Your task to perform on an android device: Open Chrome and go to settings Image 0: 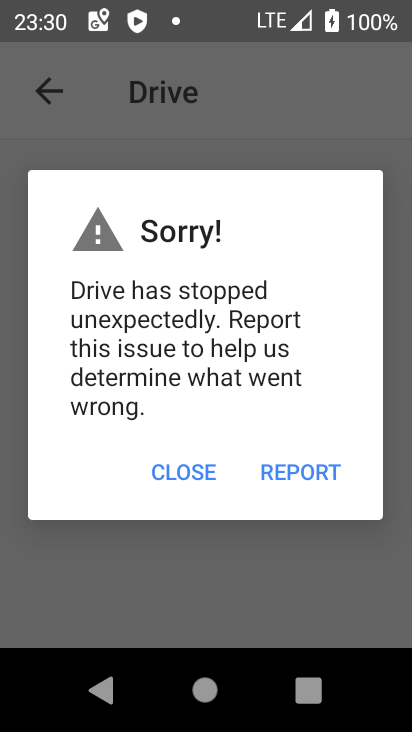
Step 0: press home button
Your task to perform on an android device: Open Chrome and go to settings Image 1: 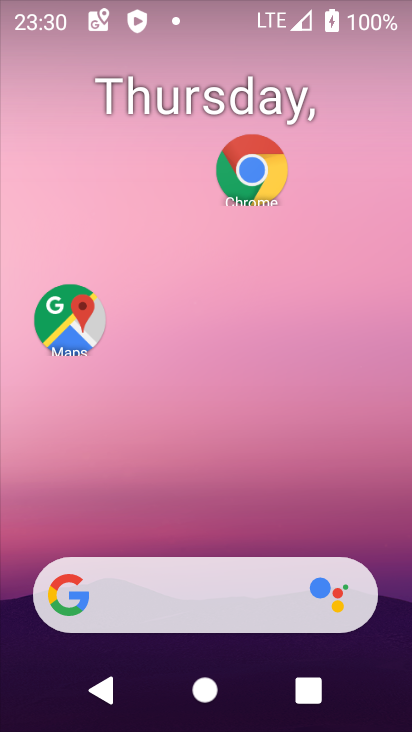
Step 1: click (253, 168)
Your task to perform on an android device: Open Chrome and go to settings Image 2: 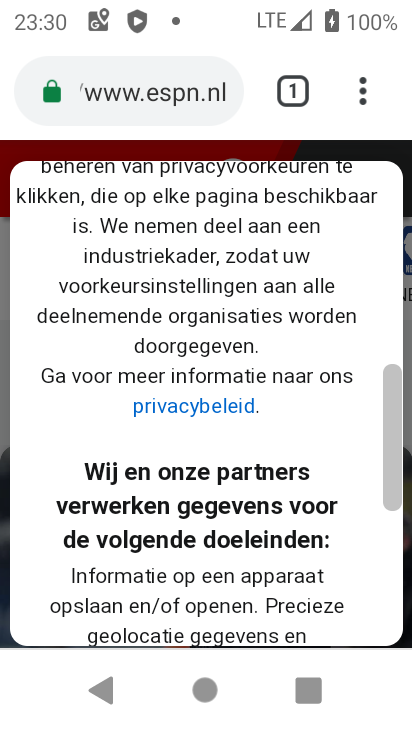
Step 2: click (363, 91)
Your task to perform on an android device: Open Chrome and go to settings Image 3: 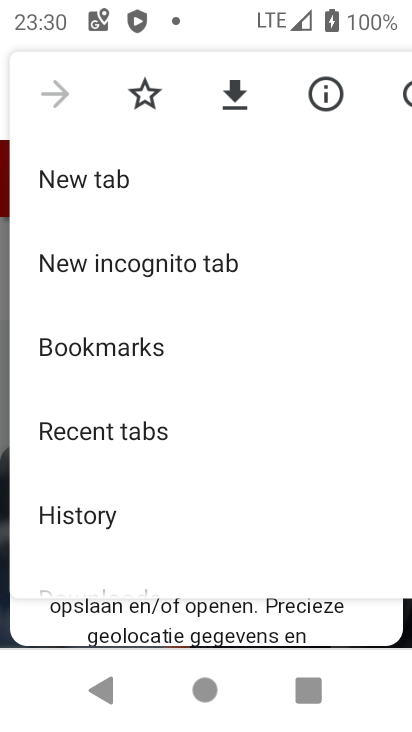
Step 3: drag from (138, 515) to (141, 251)
Your task to perform on an android device: Open Chrome and go to settings Image 4: 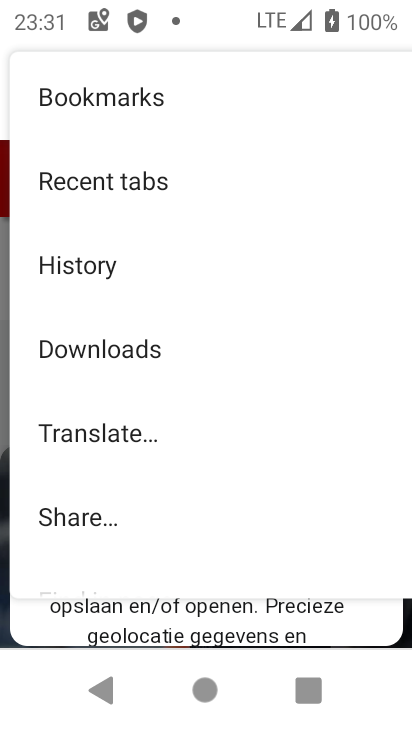
Step 4: drag from (117, 543) to (145, 290)
Your task to perform on an android device: Open Chrome and go to settings Image 5: 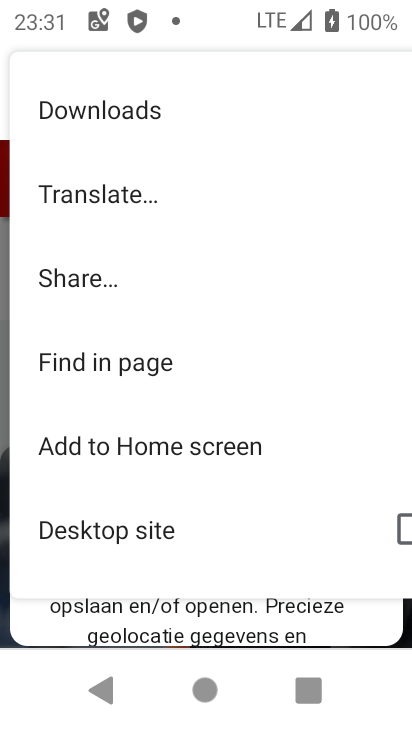
Step 5: drag from (118, 529) to (122, 343)
Your task to perform on an android device: Open Chrome and go to settings Image 6: 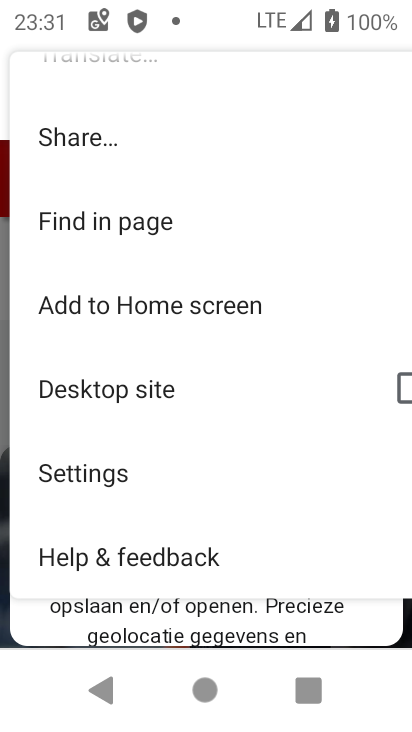
Step 6: click (88, 470)
Your task to perform on an android device: Open Chrome and go to settings Image 7: 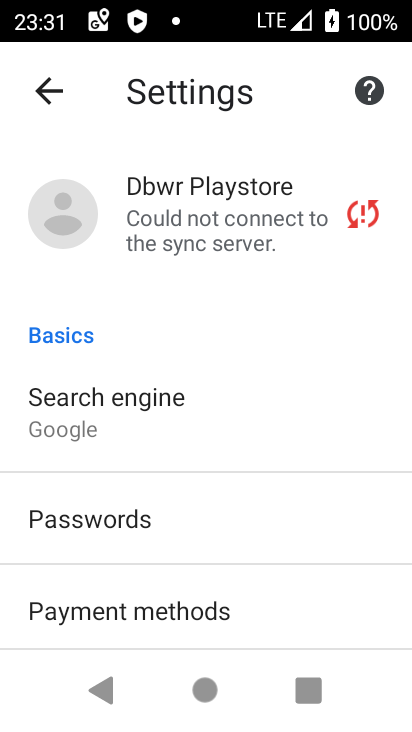
Step 7: task complete